Your task to perform on an android device: Open Google Maps Image 0: 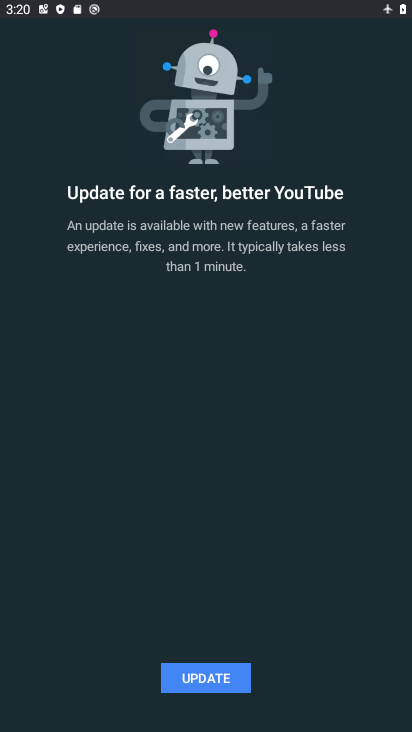
Step 0: press back button
Your task to perform on an android device: Open Google Maps Image 1: 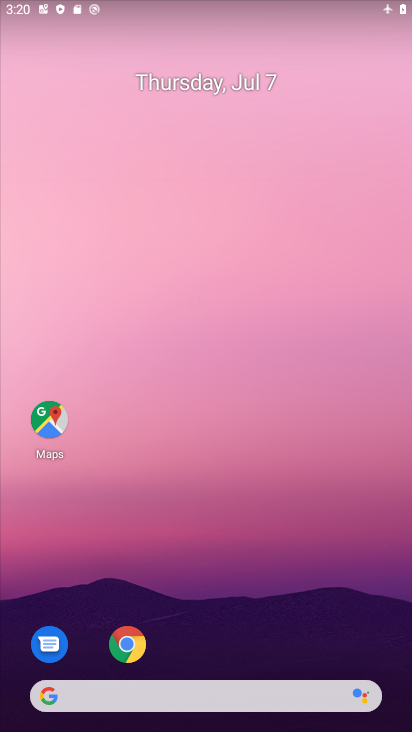
Step 1: drag from (305, 641) to (249, 121)
Your task to perform on an android device: Open Google Maps Image 2: 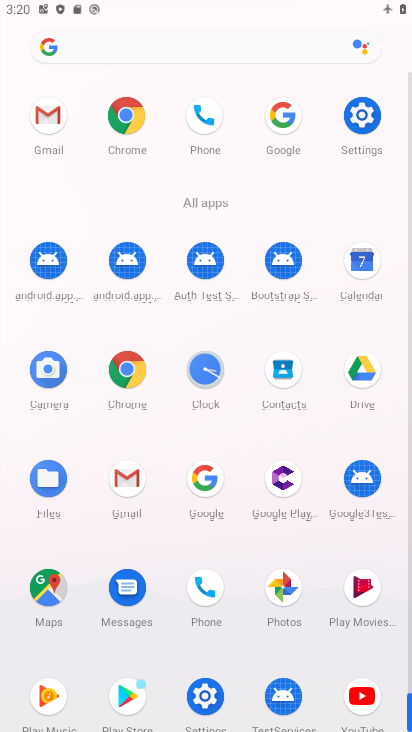
Step 2: click (43, 589)
Your task to perform on an android device: Open Google Maps Image 3: 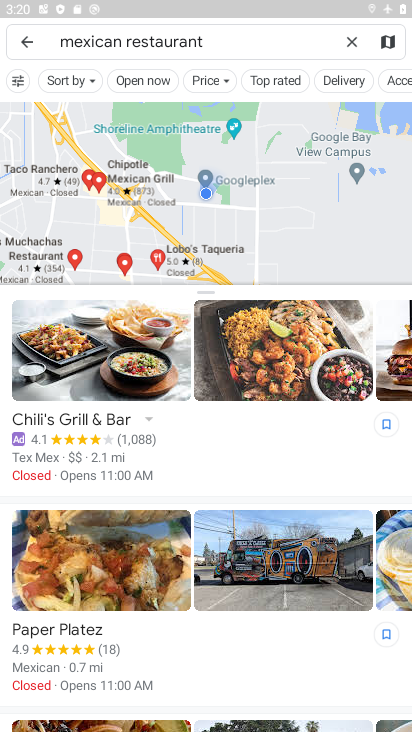
Step 3: task complete